Your task to perform on an android device: change the clock display to analog Image 0: 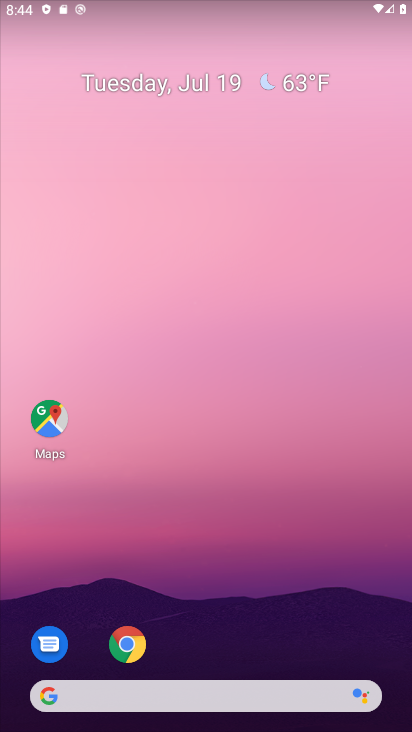
Step 0: drag from (241, 646) to (197, 315)
Your task to perform on an android device: change the clock display to analog Image 1: 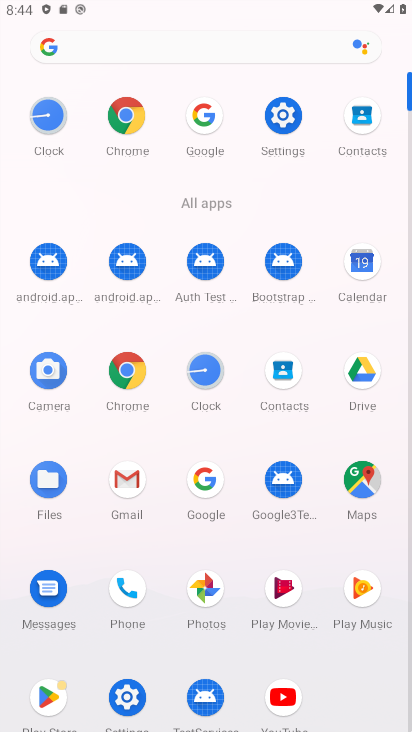
Step 1: click (202, 357)
Your task to perform on an android device: change the clock display to analog Image 2: 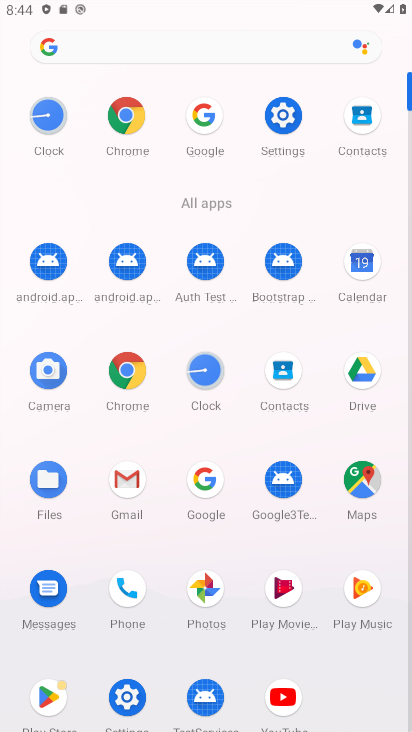
Step 2: click (203, 361)
Your task to perform on an android device: change the clock display to analog Image 3: 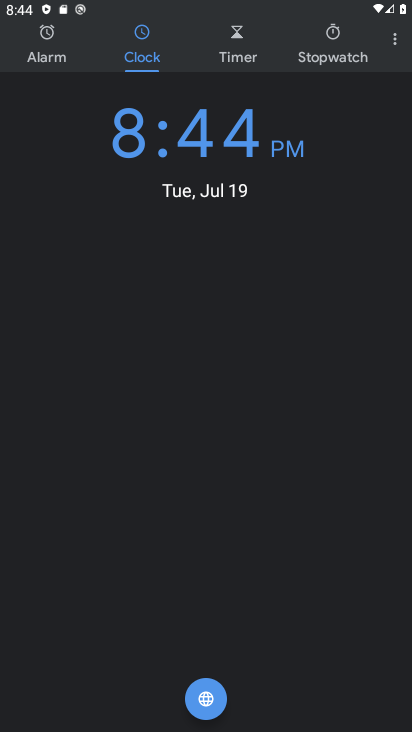
Step 3: click (394, 45)
Your task to perform on an android device: change the clock display to analog Image 4: 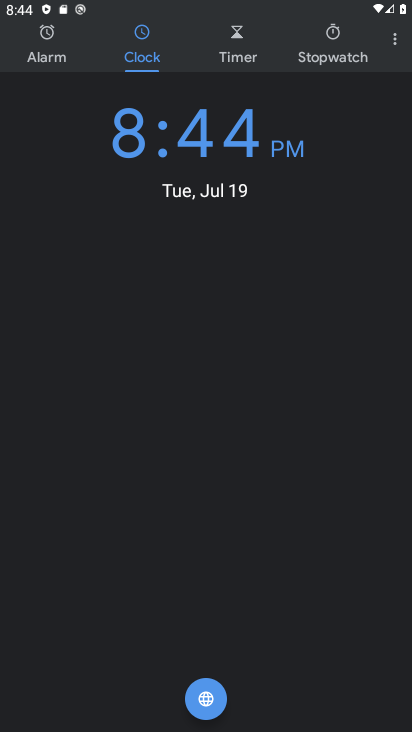
Step 4: click (348, 79)
Your task to perform on an android device: change the clock display to analog Image 5: 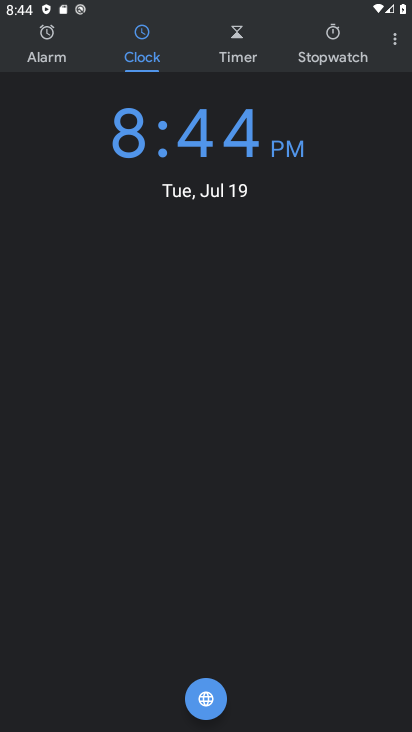
Step 5: click (394, 32)
Your task to perform on an android device: change the clock display to analog Image 6: 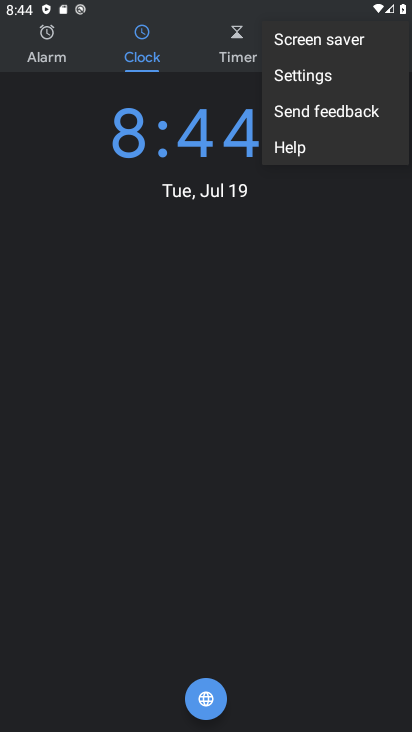
Step 6: drag from (332, 74) to (278, 82)
Your task to perform on an android device: change the clock display to analog Image 7: 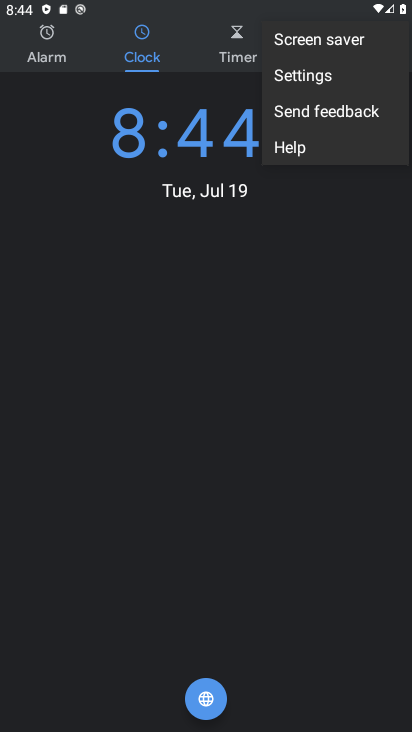
Step 7: click (278, 82)
Your task to perform on an android device: change the clock display to analog Image 8: 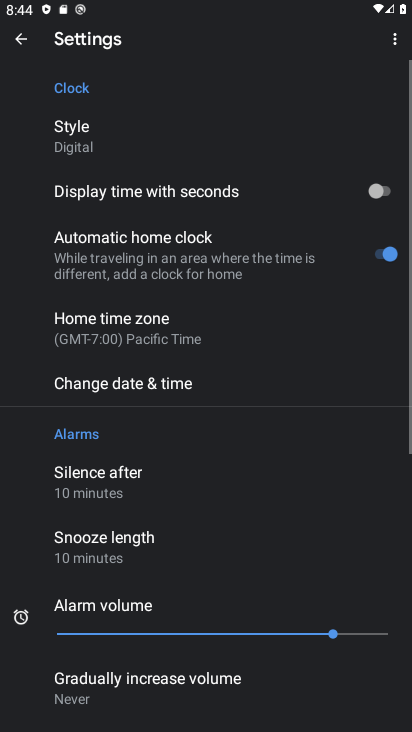
Step 8: click (94, 130)
Your task to perform on an android device: change the clock display to analog Image 9: 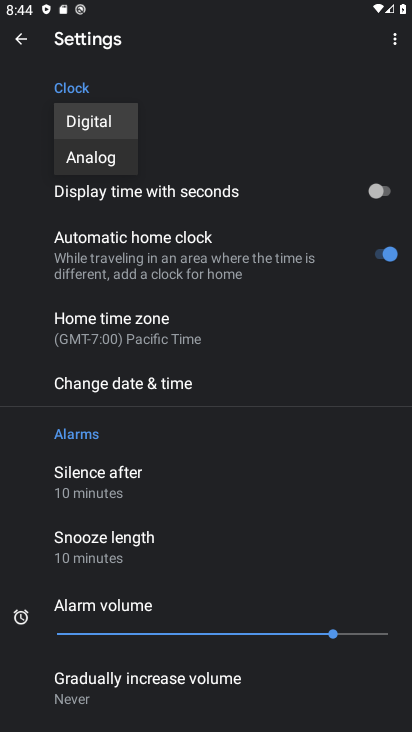
Step 9: click (101, 167)
Your task to perform on an android device: change the clock display to analog Image 10: 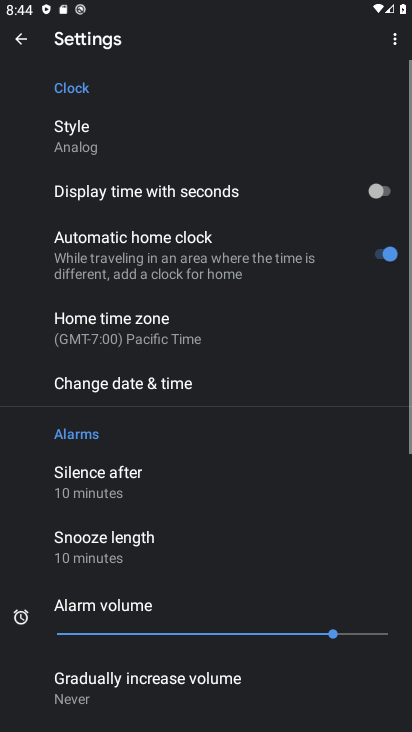
Step 10: task complete